Your task to perform on an android device: toggle show notifications on the lock screen Image 0: 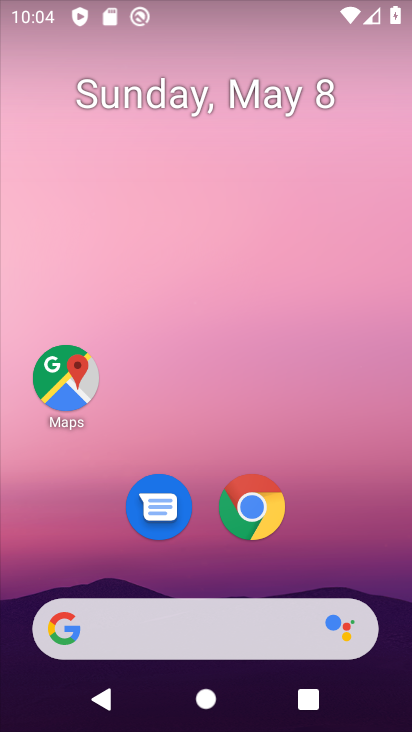
Step 0: drag from (326, 570) to (296, 27)
Your task to perform on an android device: toggle show notifications on the lock screen Image 1: 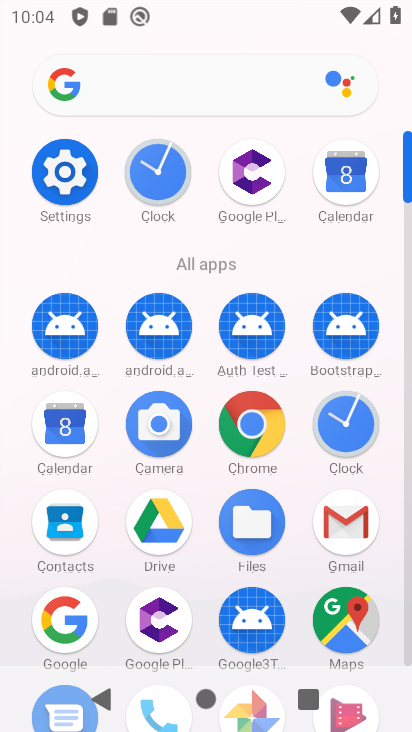
Step 1: click (46, 172)
Your task to perform on an android device: toggle show notifications on the lock screen Image 2: 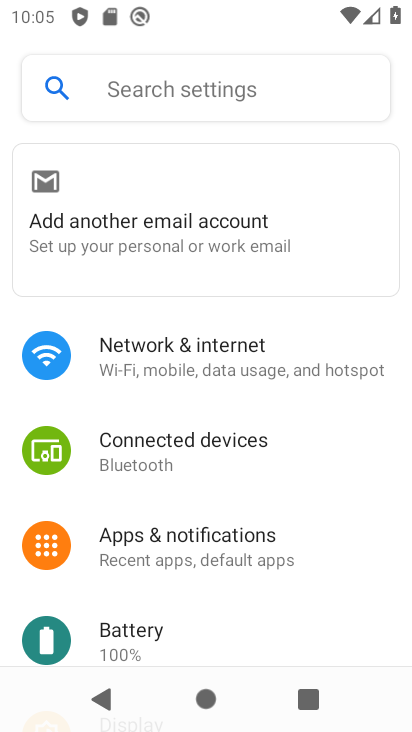
Step 2: click (190, 553)
Your task to perform on an android device: toggle show notifications on the lock screen Image 3: 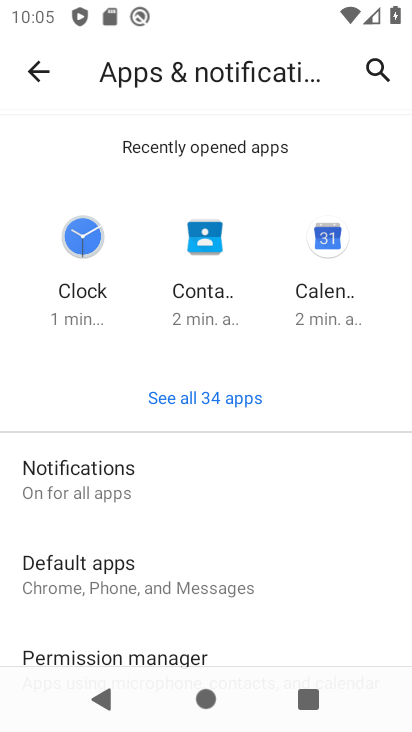
Step 3: click (140, 508)
Your task to perform on an android device: toggle show notifications on the lock screen Image 4: 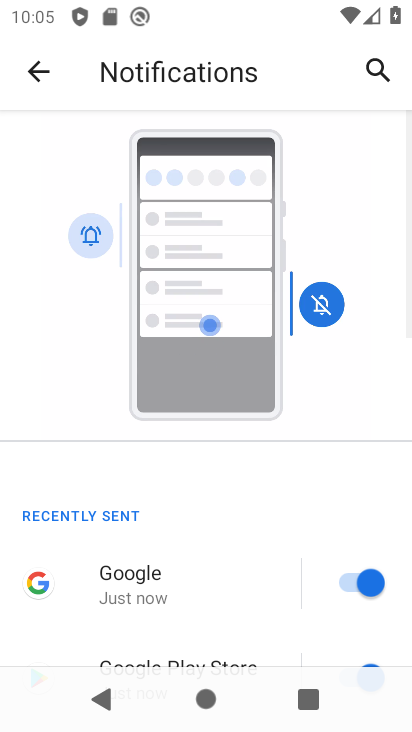
Step 4: drag from (157, 600) to (190, 324)
Your task to perform on an android device: toggle show notifications on the lock screen Image 5: 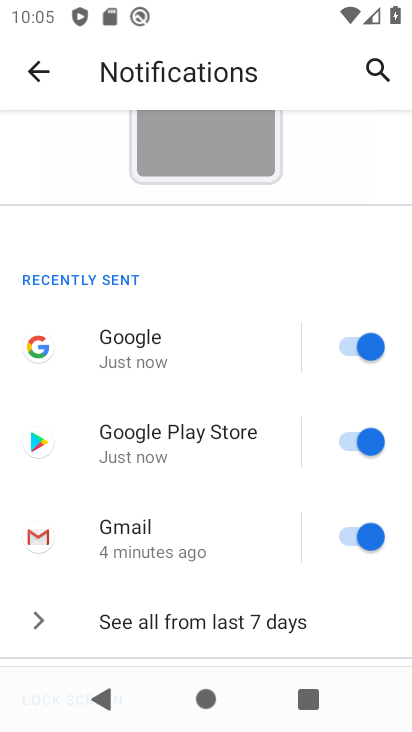
Step 5: drag from (237, 627) to (260, 369)
Your task to perform on an android device: toggle show notifications on the lock screen Image 6: 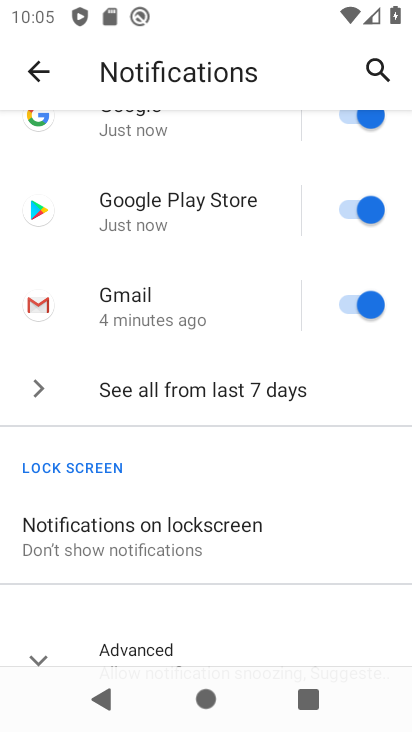
Step 6: click (212, 527)
Your task to perform on an android device: toggle show notifications on the lock screen Image 7: 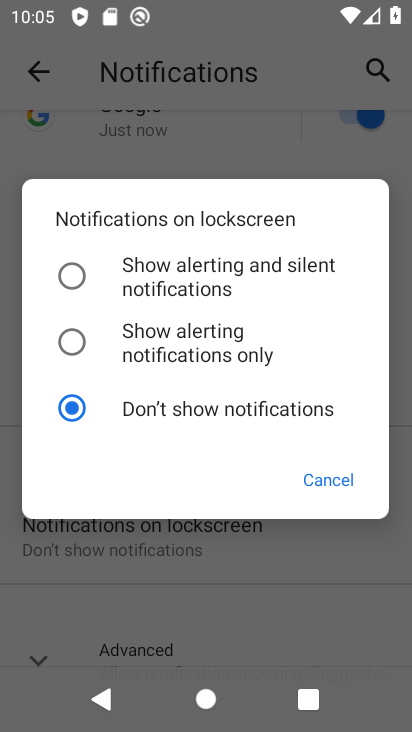
Step 7: click (216, 295)
Your task to perform on an android device: toggle show notifications on the lock screen Image 8: 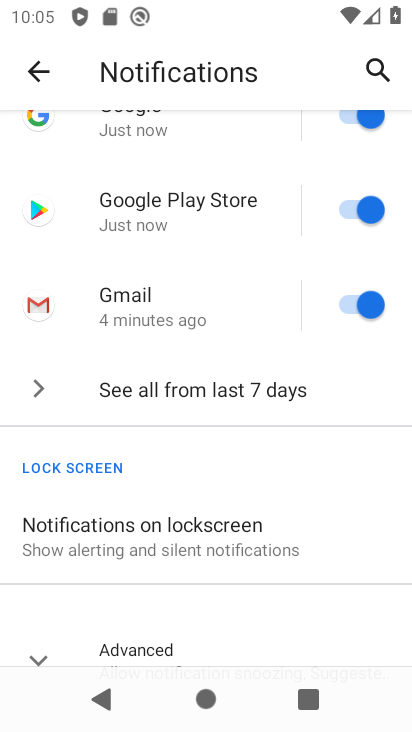
Step 8: task complete